Your task to perform on an android device: turn pop-ups off in chrome Image 0: 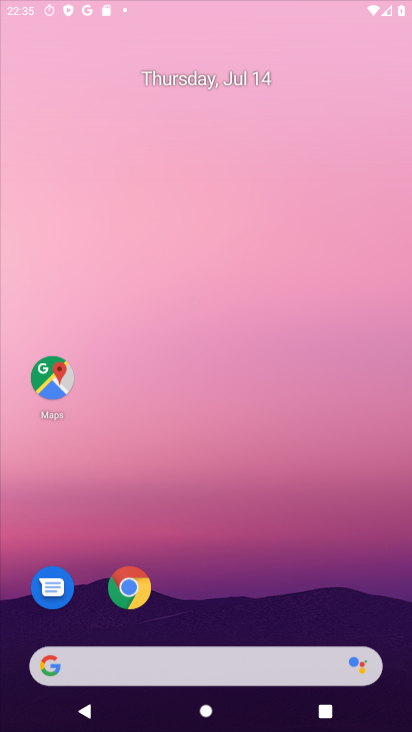
Step 0: press home button
Your task to perform on an android device: turn pop-ups off in chrome Image 1: 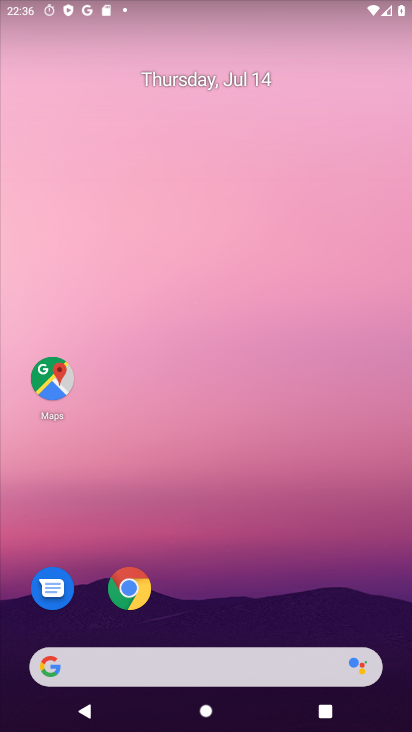
Step 1: click (126, 590)
Your task to perform on an android device: turn pop-ups off in chrome Image 2: 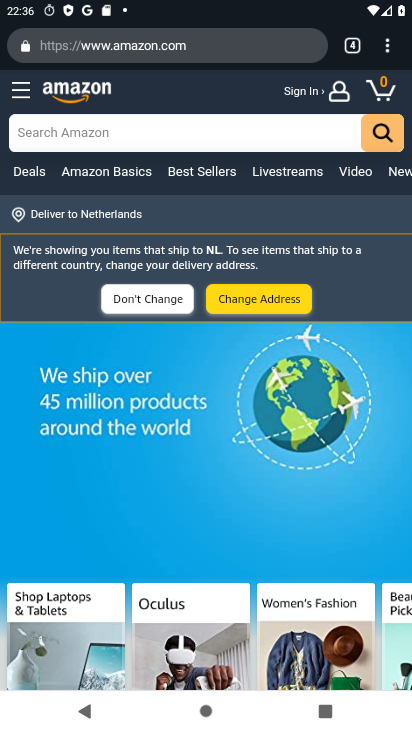
Step 2: click (384, 51)
Your task to perform on an android device: turn pop-ups off in chrome Image 3: 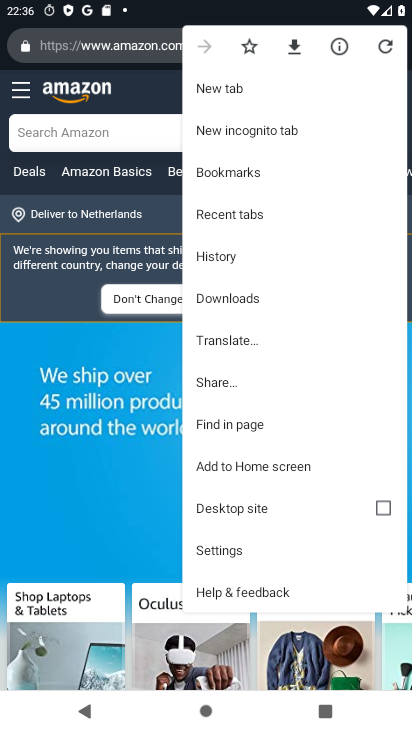
Step 3: click (225, 549)
Your task to perform on an android device: turn pop-ups off in chrome Image 4: 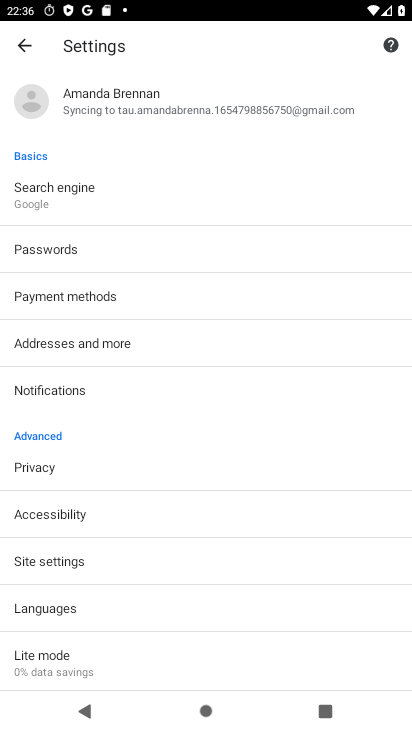
Step 4: click (76, 563)
Your task to perform on an android device: turn pop-ups off in chrome Image 5: 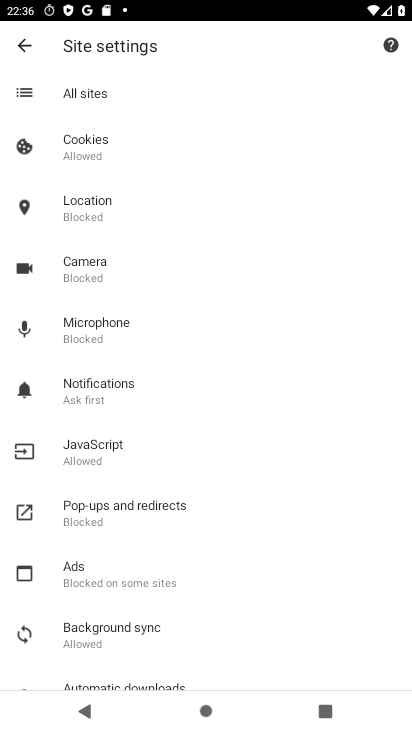
Step 5: click (115, 520)
Your task to perform on an android device: turn pop-ups off in chrome Image 6: 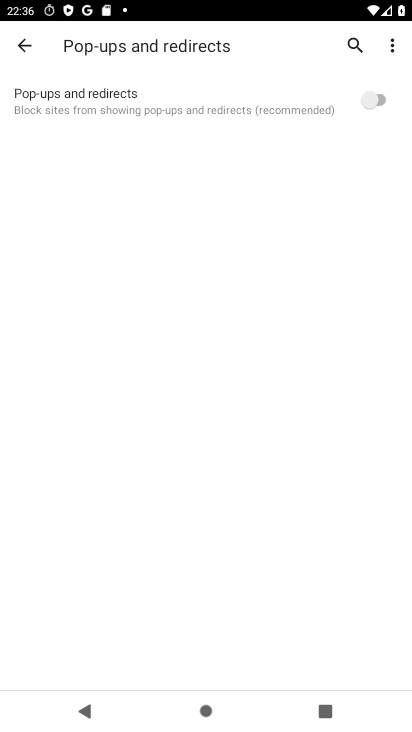
Step 6: task complete